Your task to perform on an android device: turn notification dots off Image 0: 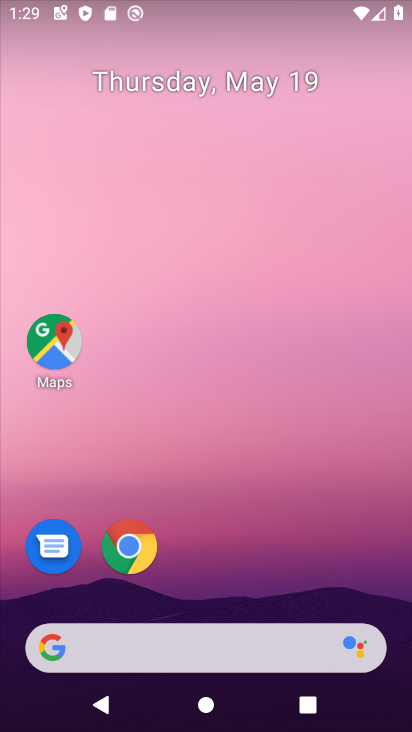
Step 0: drag from (220, 565) to (290, 161)
Your task to perform on an android device: turn notification dots off Image 1: 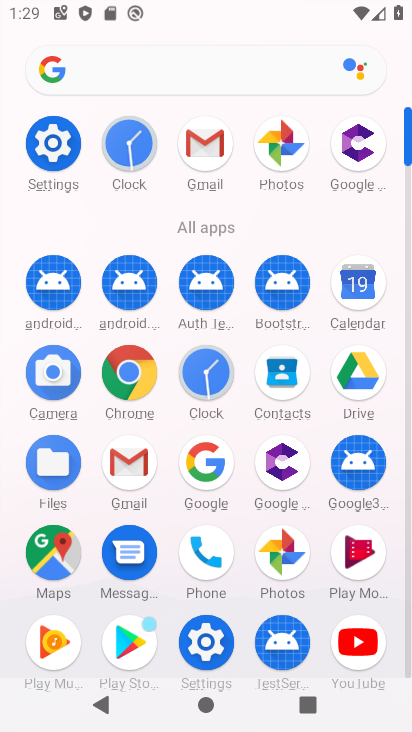
Step 1: click (211, 641)
Your task to perform on an android device: turn notification dots off Image 2: 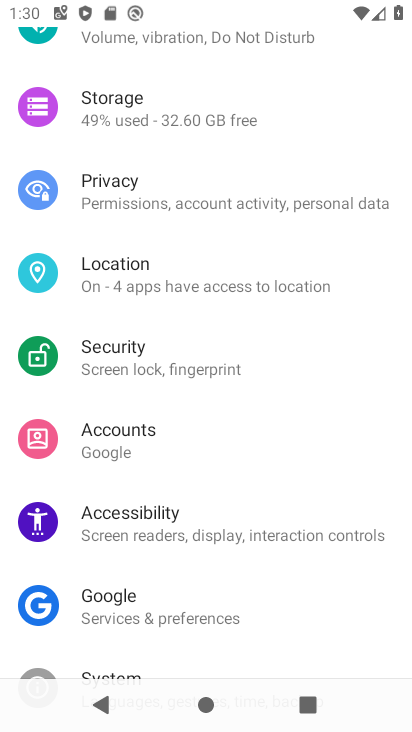
Step 2: drag from (189, 169) to (152, 617)
Your task to perform on an android device: turn notification dots off Image 3: 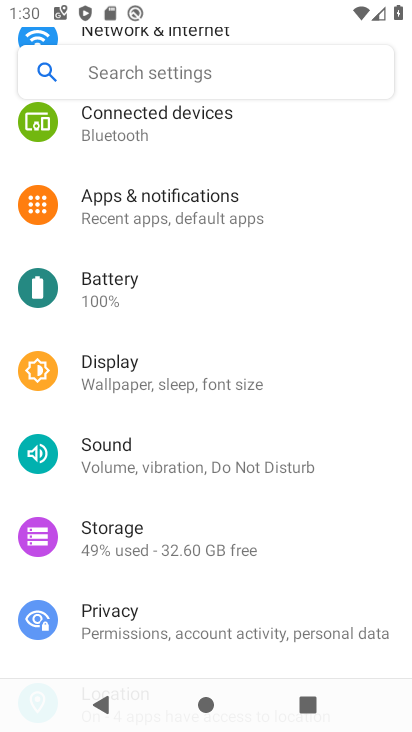
Step 3: click (225, 218)
Your task to perform on an android device: turn notification dots off Image 4: 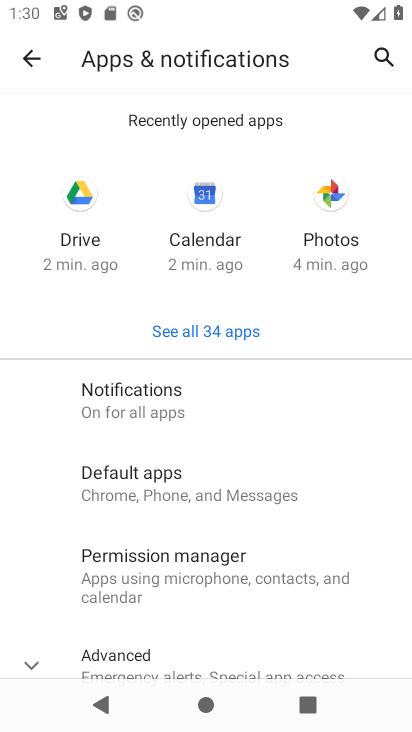
Step 4: drag from (246, 541) to (232, 298)
Your task to perform on an android device: turn notification dots off Image 5: 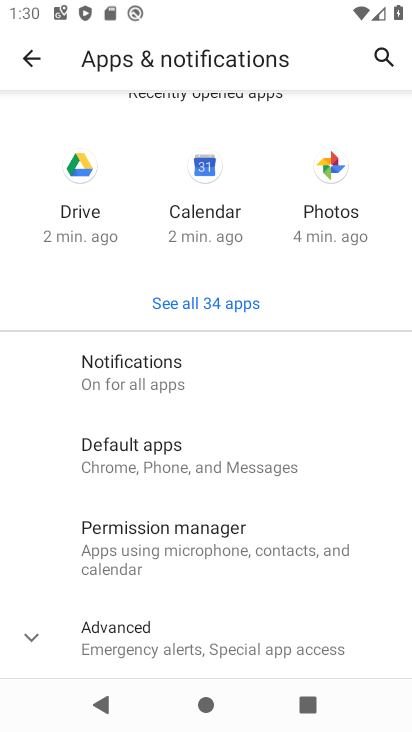
Step 5: click (37, 638)
Your task to perform on an android device: turn notification dots off Image 6: 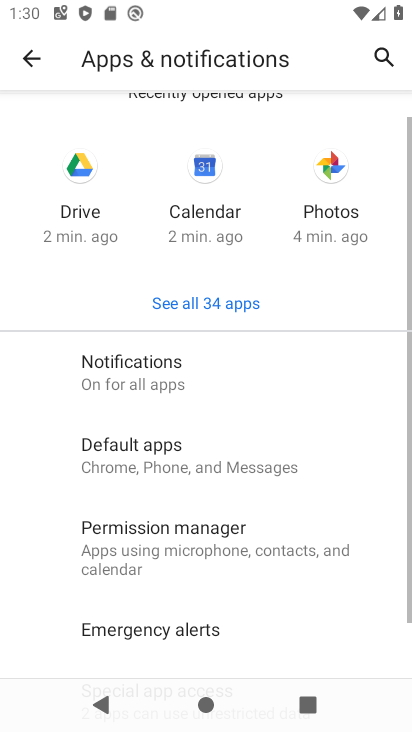
Step 6: drag from (91, 581) to (143, 282)
Your task to perform on an android device: turn notification dots off Image 7: 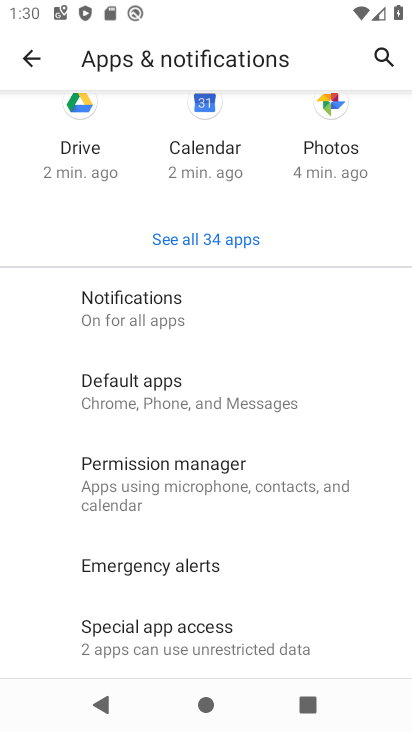
Step 7: click (154, 319)
Your task to perform on an android device: turn notification dots off Image 8: 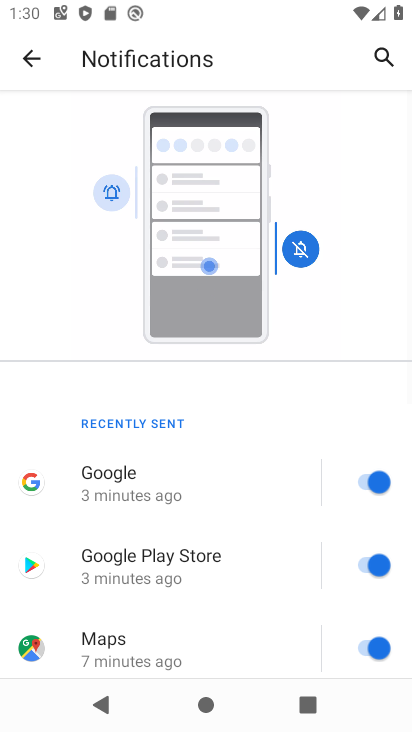
Step 8: drag from (227, 599) to (320, 170)
Your task to perform on an android device: turn notification dots off Image 9: 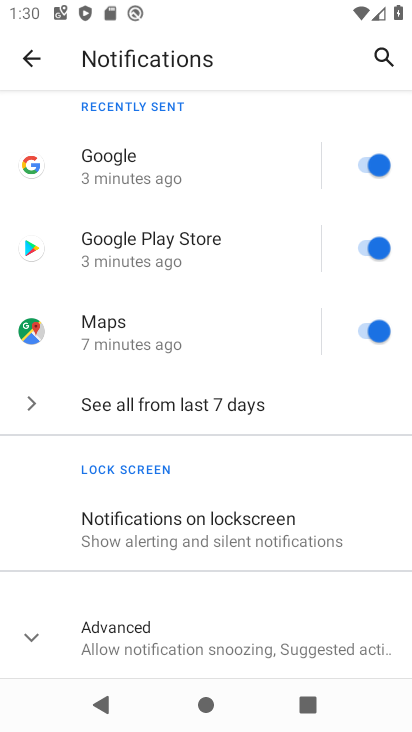
Step 9: click (43, 630)
Your task to perform on an android device: turn notification dots off Image 10: 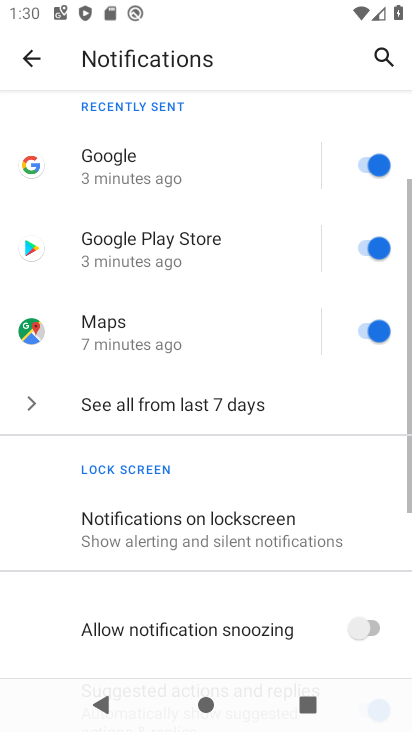
Step 10: drag from (159, 586) to (276, 249)
Your task to perform on an android device: turn notification dots off Image 11: 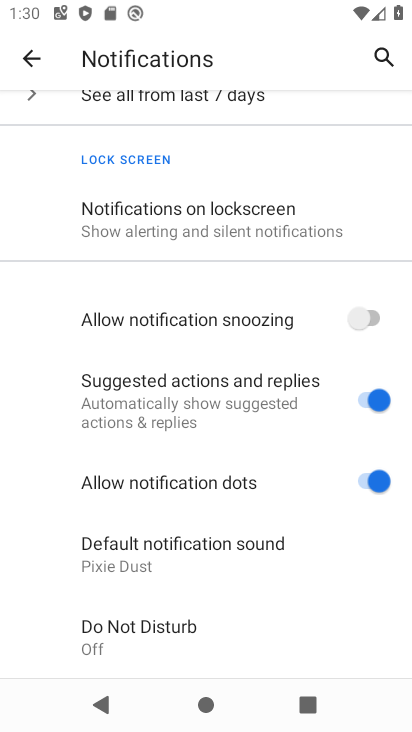
Step 11: click (376, 484)
Your task to perform on an android device: turn notification dots off Image 12: 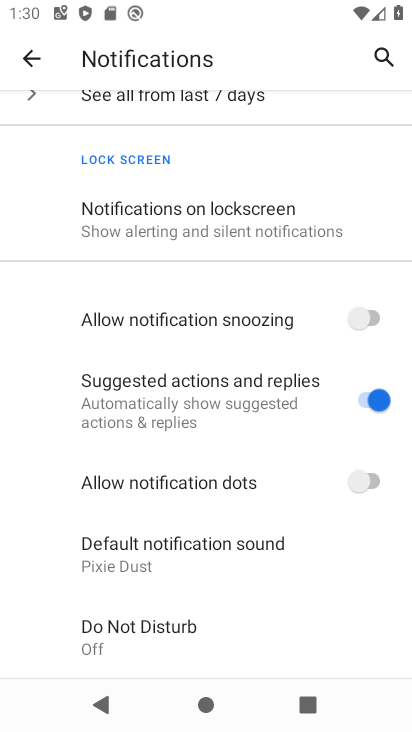
Step 12: task complete